Your task to perform on an android device: Go to Android settings Image 0: 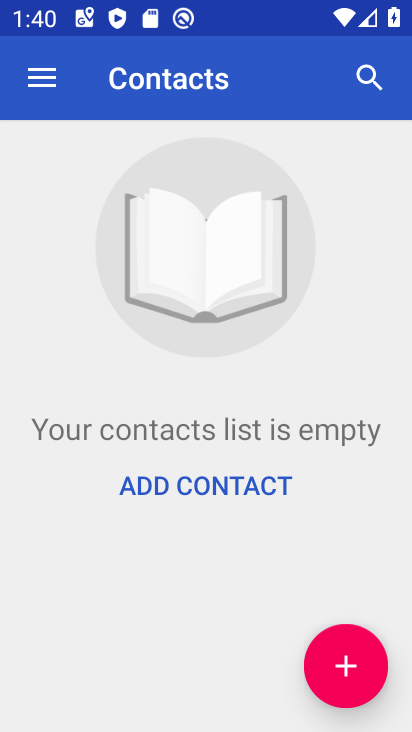
Step 0: press back button
Your task to perform on an android device: Go to Android settings Image 1: 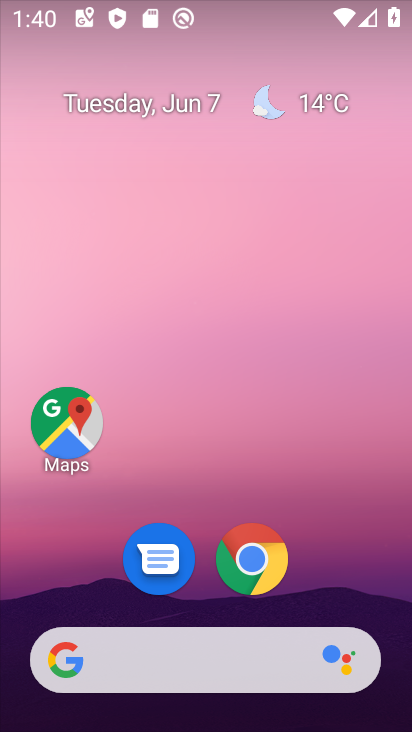
Step 1: drag from (332, 578) to (202, 69)
Your task to perform on an android device: Go to Android settings Image 2: 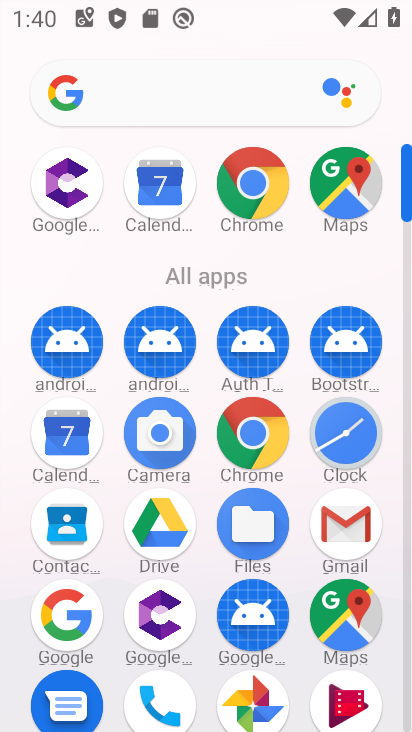
Step 2: drag from (23, 518) to (15, 240)
Your task to perform on an android device: Go to Android settings Image 3: 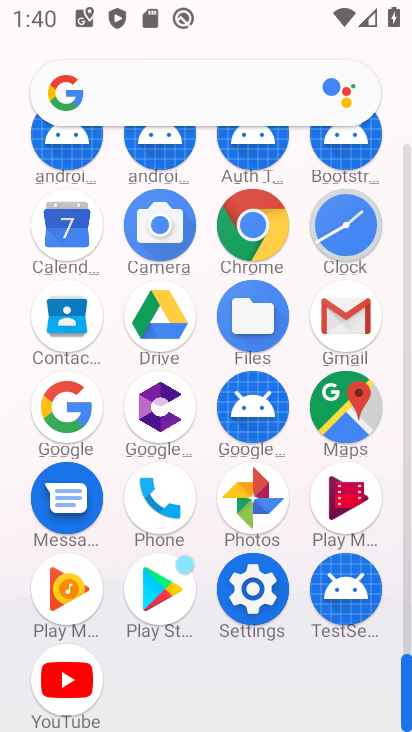
Step 3: click (256, 584)
Your task to perform on an android device: Go to Android settings Image 4: 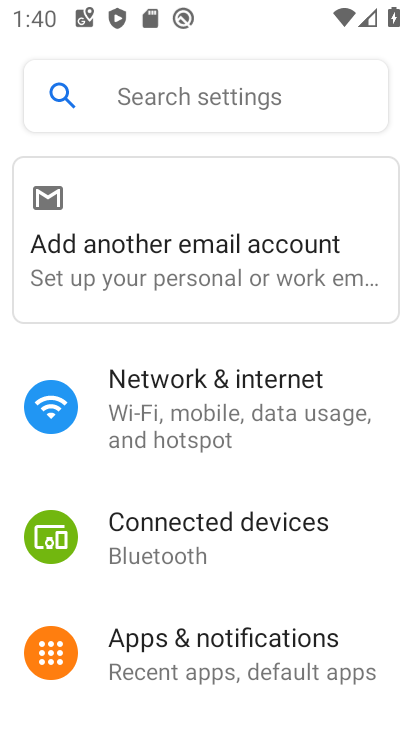
Step 4: task complete